Your task to perform on an android device: toggle airplane mode Image 0: 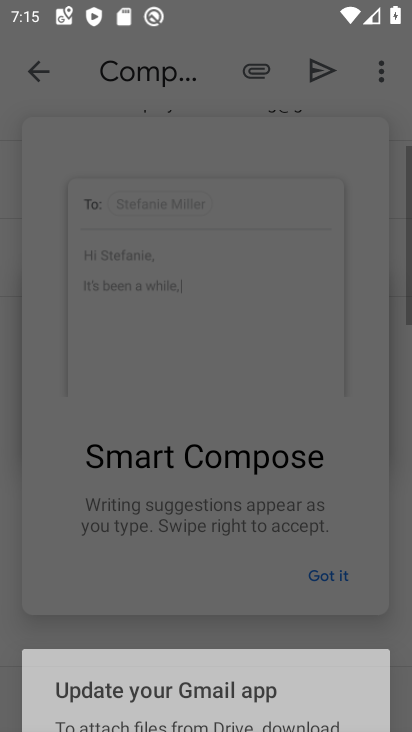
Step 0: press home button
Your task to perform on an android device: toggle airplane mode Image 1: 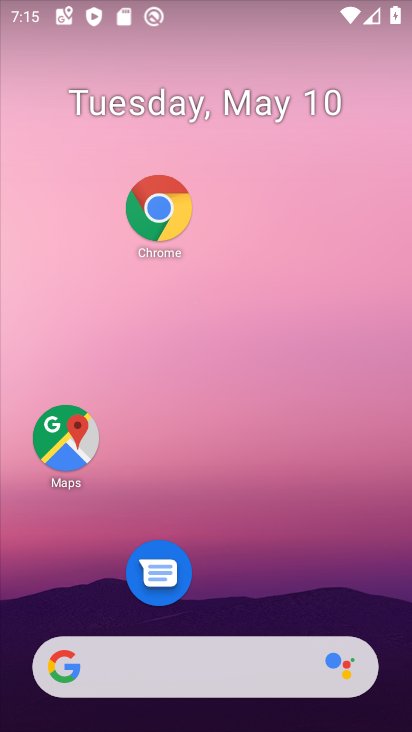
Step 1: drag from (301, 690) to (196, 288)
Your task to perform on an android device: toggle airplane mode Image 2: 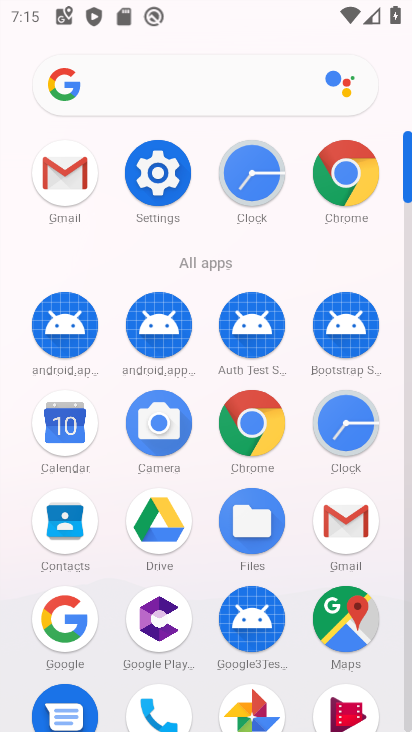
Step 2: click (145, 148)
Your task to perform on an android device: toggle airplane mode Image 3: 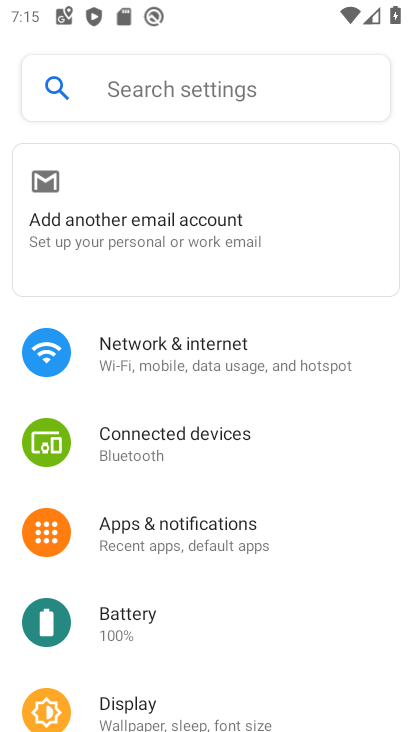
Step 3: click (164, 345)
Your task to perform on an android device: toggle airplane mode Image 4: 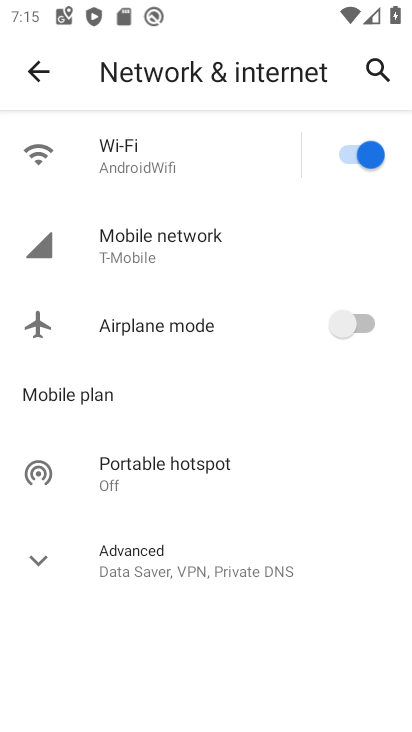
Step 4: click (303, 324)
Your task to perform on an android device: toggle airplane mode Image 5: 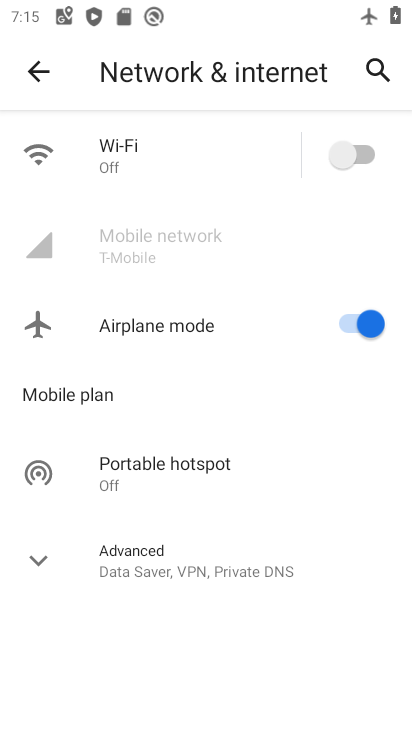
Step 5: click (303, 324)
Your task to perform on an android device: toggle airplane mode Image 6: 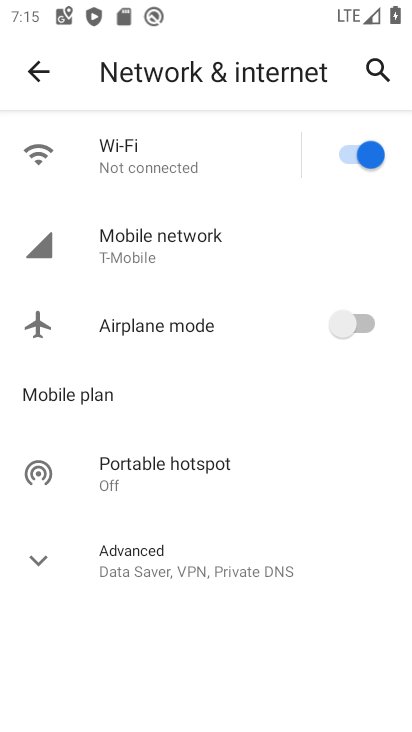
Step 6: task complete